Your task to perform on an android device: turn off priority inbox in the gmail app Image 0: 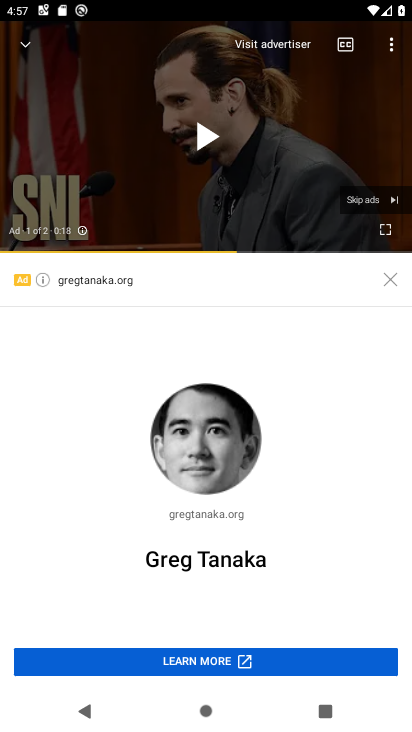
Step 0: press home button
Your task to perform on an android device: turn off priority inbox in the gmail app Image 1: 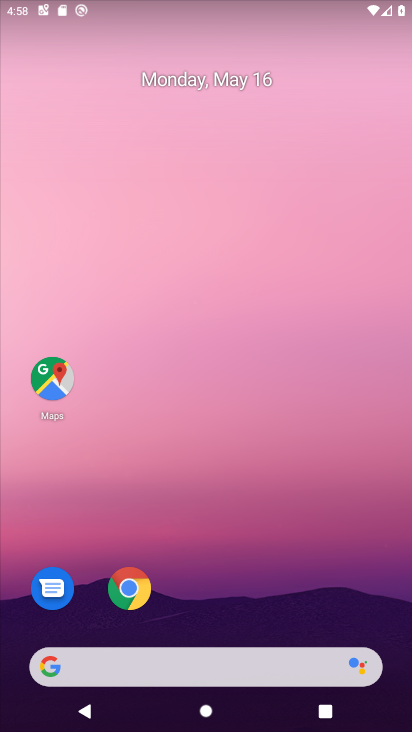
Step 1: drag from (278, 575) to (179, 88)
Your task to perform on an android device: turn off priority inbox in the gmail app Image 2: 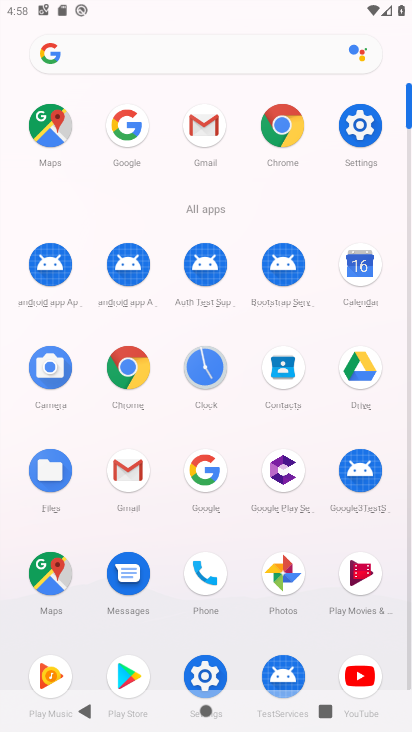
Step 2: click (206, 127)
Your task to perform on an android device: turn off priority inbox in the gmail app Image 3: 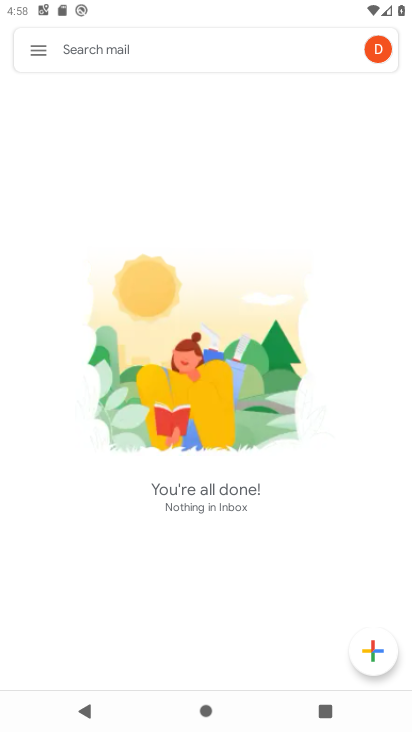
Step 3: click (36, 49)
Your task to perform on an android device: turn off priority inbox in the gmail app Image 4: 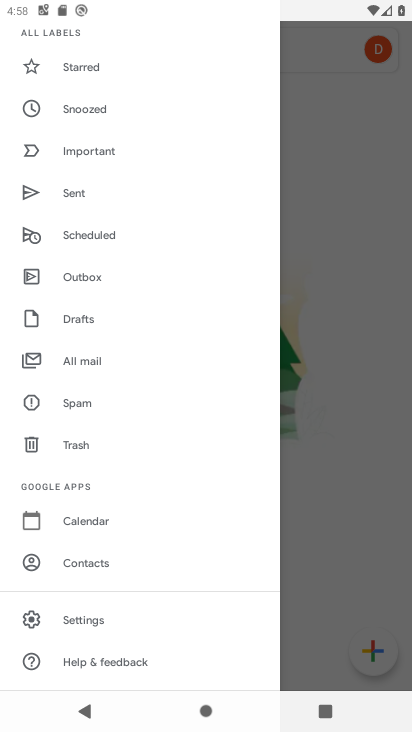
Step 4: click (107, 625)
Your task to perform on an android device: turn off priority inbox in the gmail app Image 5: 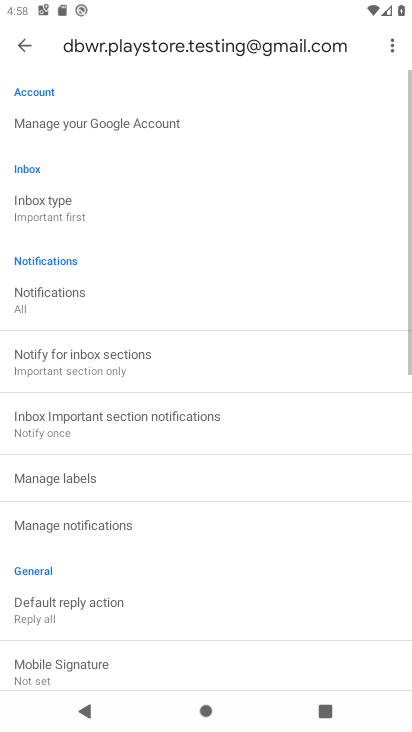
Step 5: click (72, 210)
Your task to perform on an android device: turn off priority inbox in the gmail app Image 6: 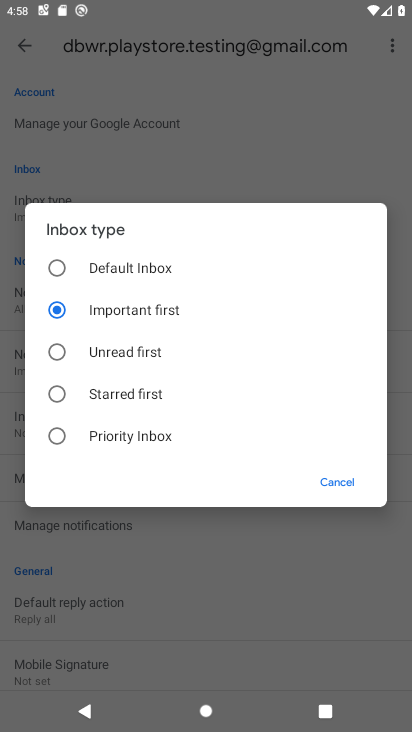
Step 6: task complete